Your task to perform on an android device: What's the weather going to be this weekend? Image 0: 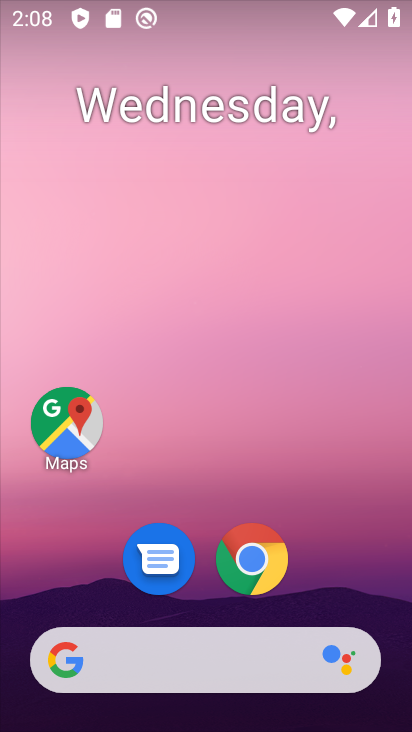
Step 0: click (209, 656)
Your task to perform on an android device: What's the weather going to be this weekend? Image 1: 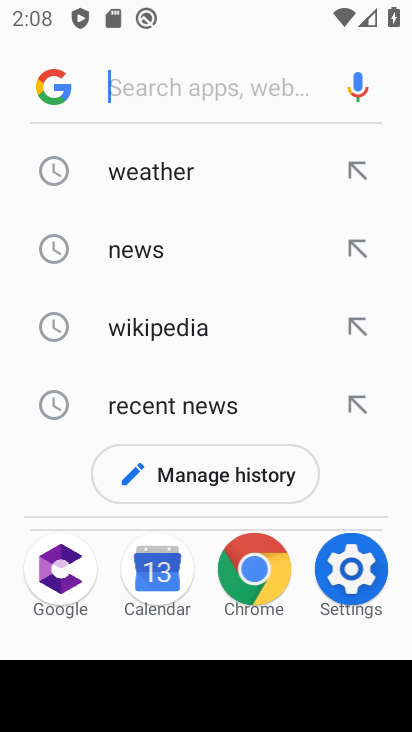
Step 1: click (191, 179)
Your task to perform on an android device: What's the weather going to be this weekend? Image 2: 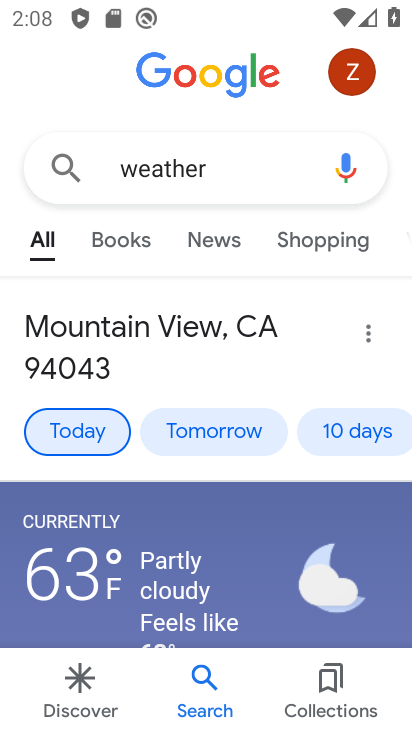
Step 2: click (367, 437)
Your task to perform on an android device: What's the weather going to be this weekend? Image 3: 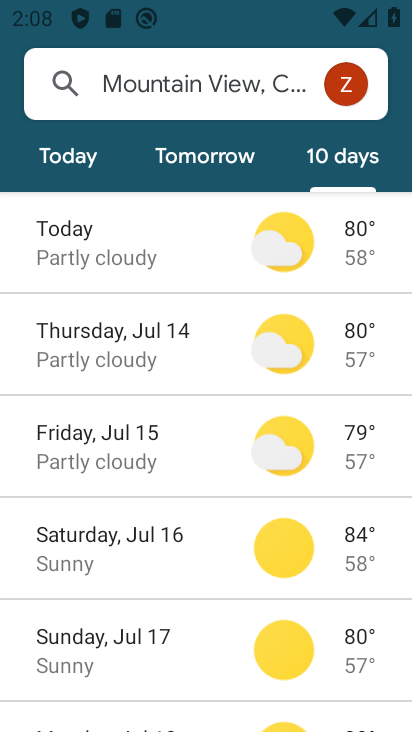
Step 3: drag from (169, 571) to (201, 387)
Your task to perform on an android device: What's the weather going to be this weekend? Image 4: 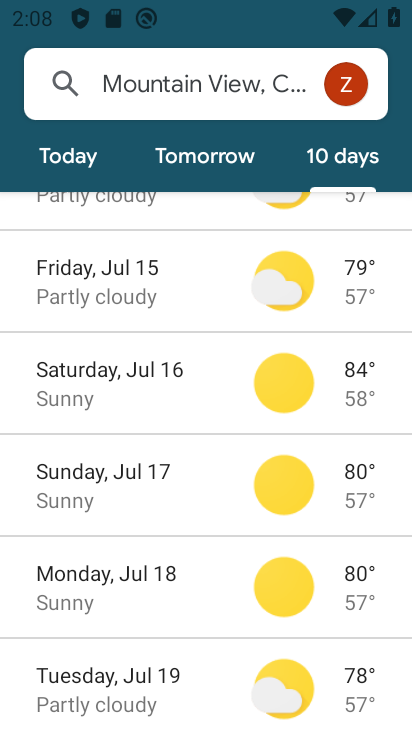
Step 4: click (165, 396)
Your task to perform on an android device: What's the weather going to be this weekend? Image 5: 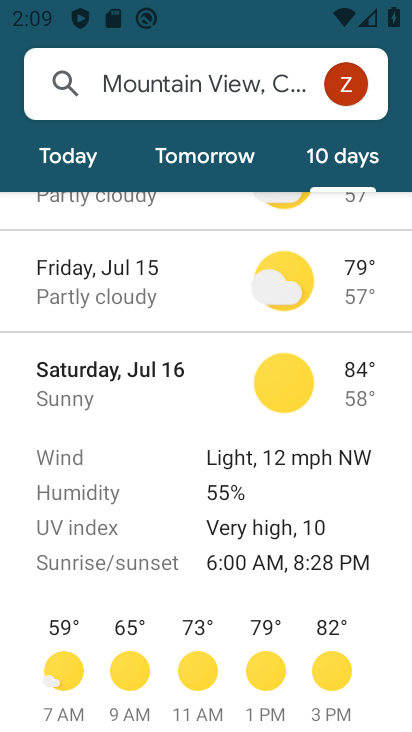
Step 5: task complete